Your task to perform on an android device: change timer sound Image 0: 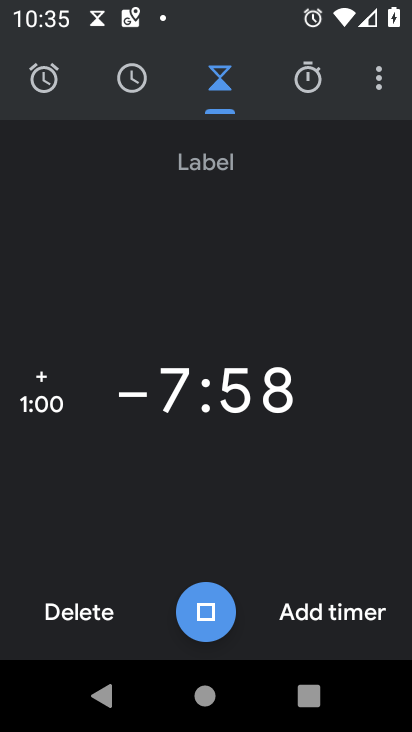
Step 0: press home button
Your task to perform on an android device: change timer sound Image 1: 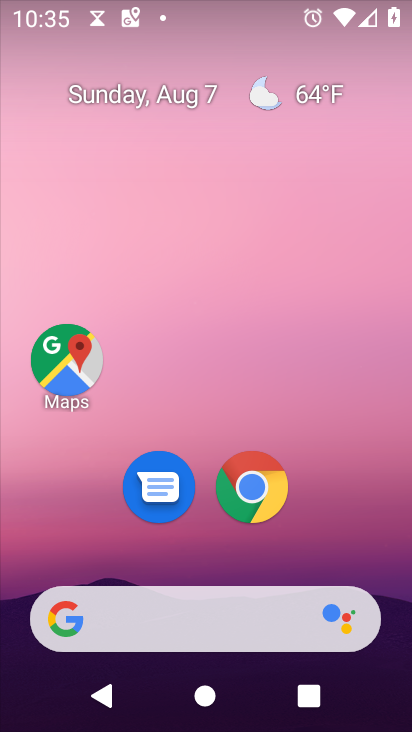
Step 1: drag from (386, 700) to (317, 108)
Your task to perform on an android device: change timer sound Image 2: 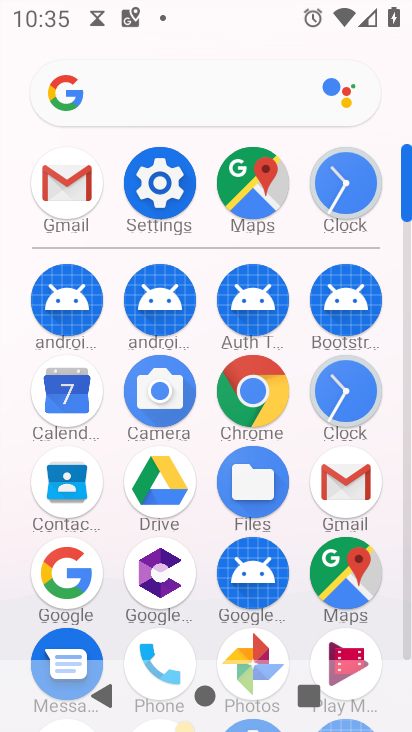
Step 2: click (335, 400)
Your task to perform on an android device: change timer sound Image 3: 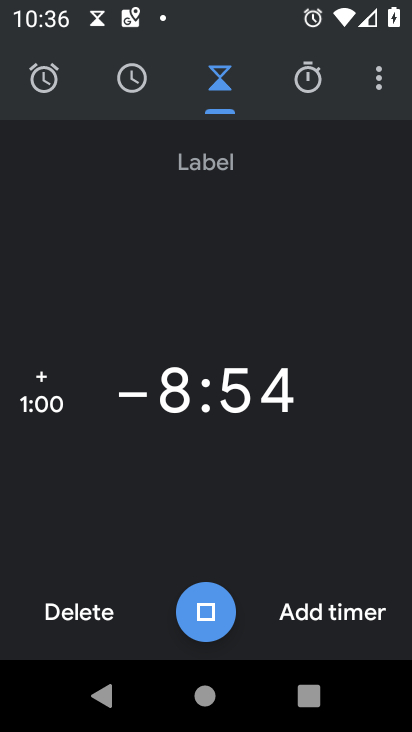
Step 3: click (378, 78)
Your task to perform on an android device: change timer sound Image 4: 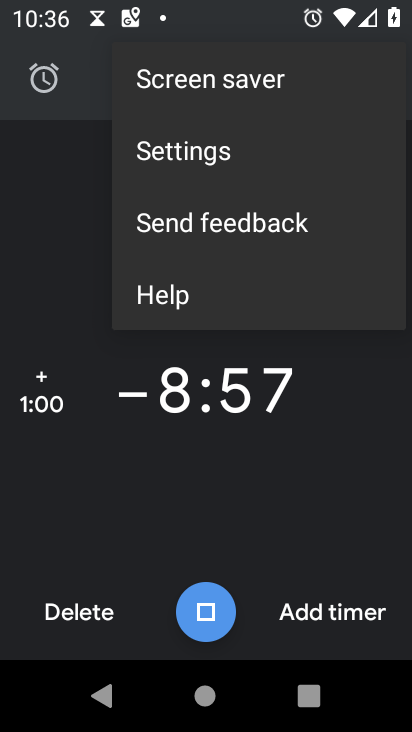
Step 4: click (54, 201)
Your task to perform on an android device: change timer sound Image 5: 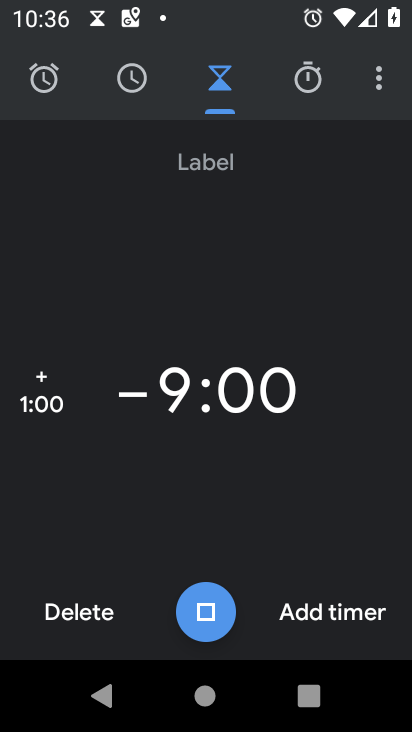
Step 5: click (376, 69)
Your task to perform on an android device: change timer sound Image 6: 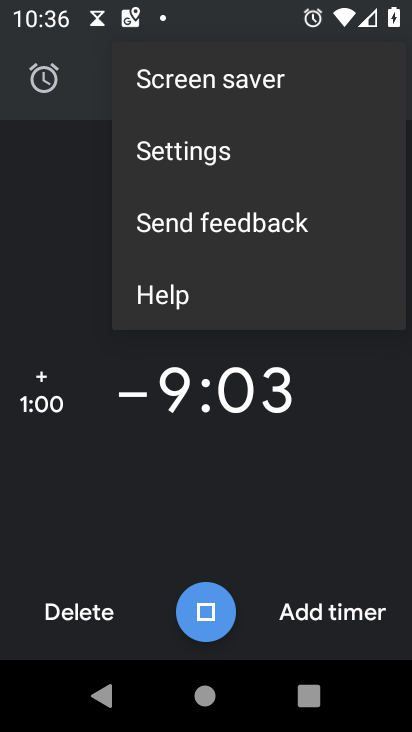
Step 6: click (169, 153)
Your task to perform on an android device: change timer sound Image 7: 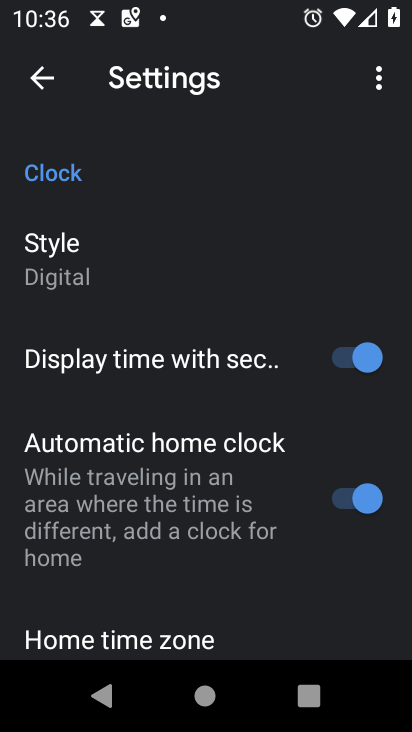
Step 7: drag from (264, 621) to (282, 222)
Your task to perform on an android device: change timer sound Image 8: 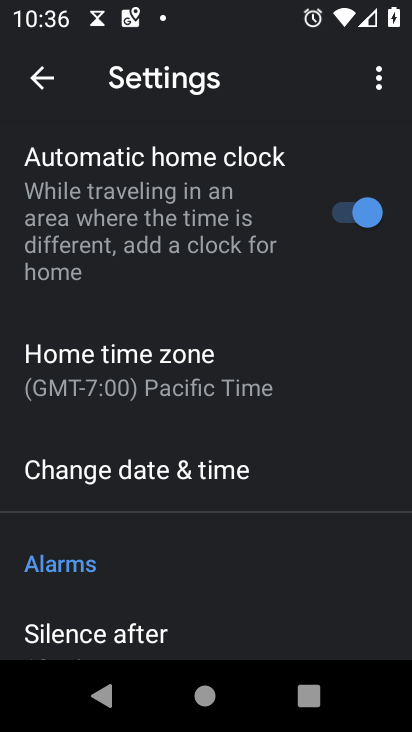
Step 8: drag from (234, 565) to (237, 146)
Your task to perform on an android device: change timer sound Image 9: 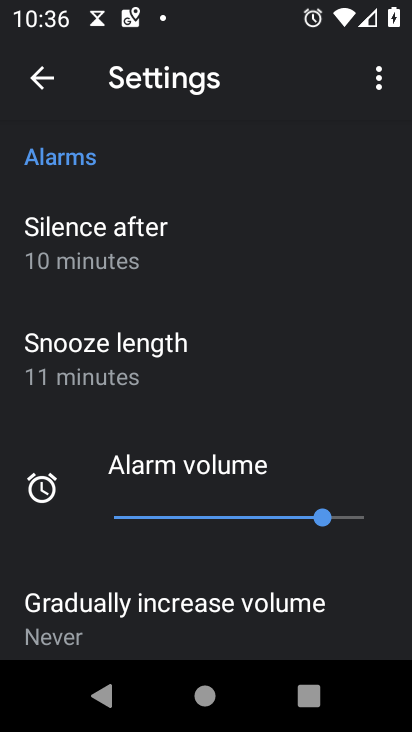
Step 9: drag from (174, 561) to (258, 200)
Your task to perform on an android device: change timer sound Image 10: 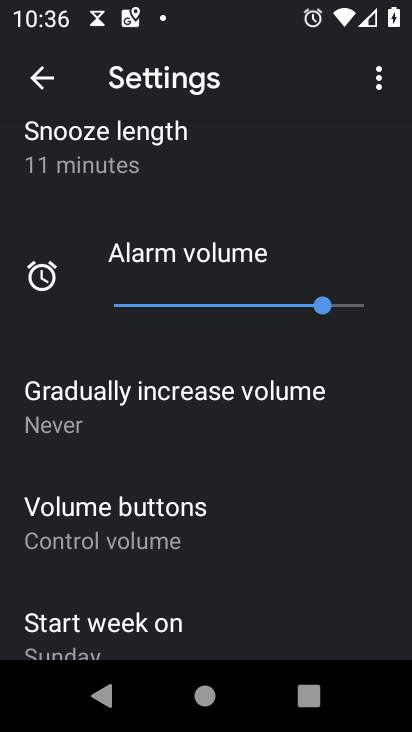
Step 10: drag from (224, 584) to (248, 197)
Your task to perform on an android device: change timer sound Image 11: 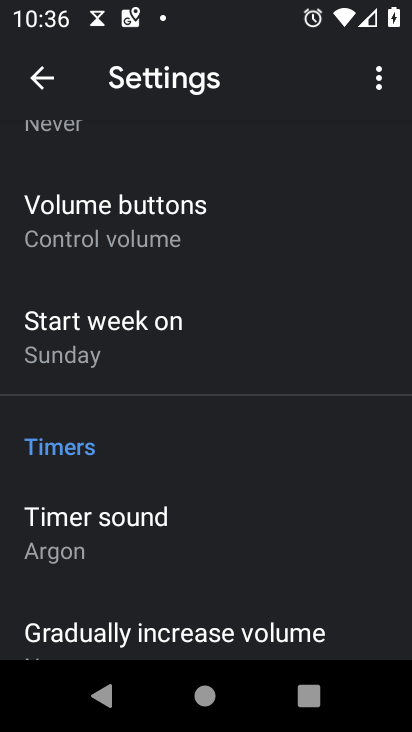
Step 11: click (80, 516)
Your task to perform on an android device: change timer sound Image 12: 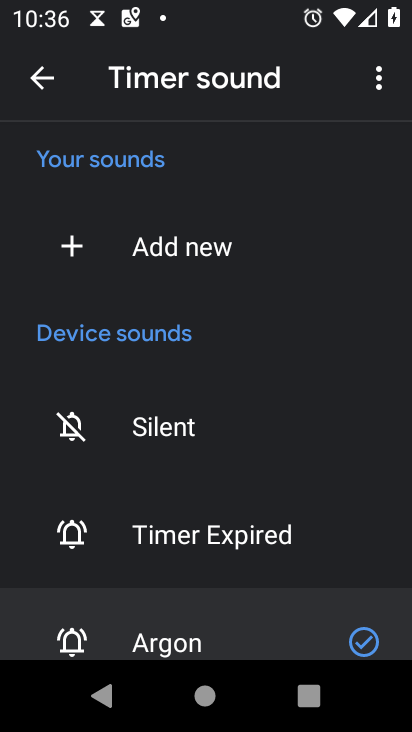
Step 12: drag from (375, 537) to (353, 156)
Your task to perform on an android device: change timer sound Image 13: 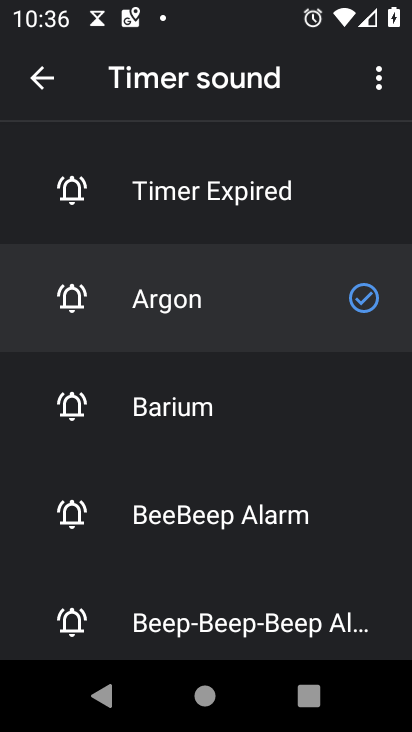
Step 13: click (138, 404)
Your task to perform on an android device: change timer sound Image 14: 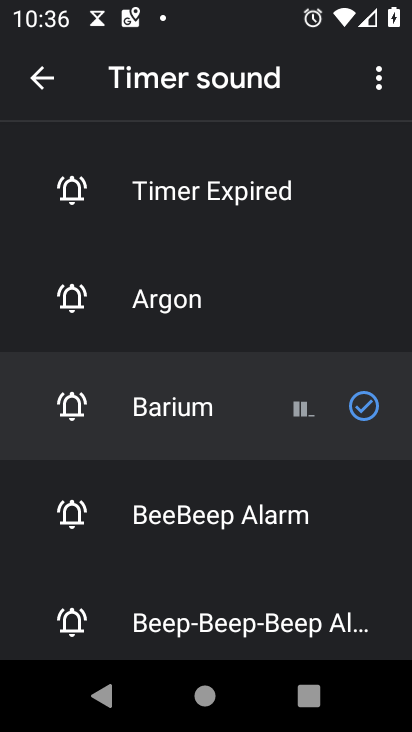
Step 14: task complete